Your task to perform on an android device: change keyboard looks Image 0: 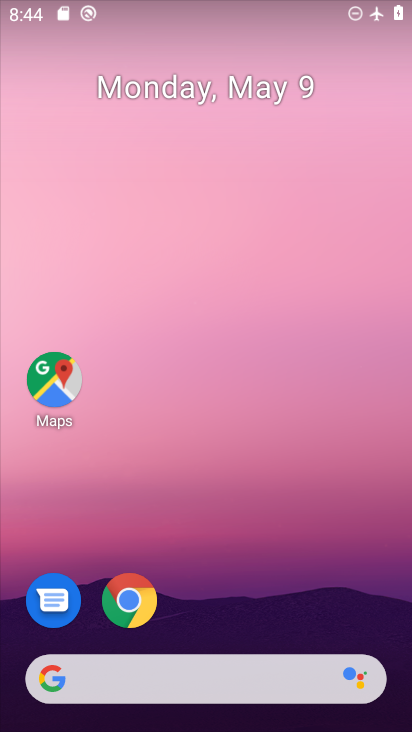
Step 0: drag from (218, 430) to (226, 22)
Your task to perform on an android device: change keyboard looks Image 1: 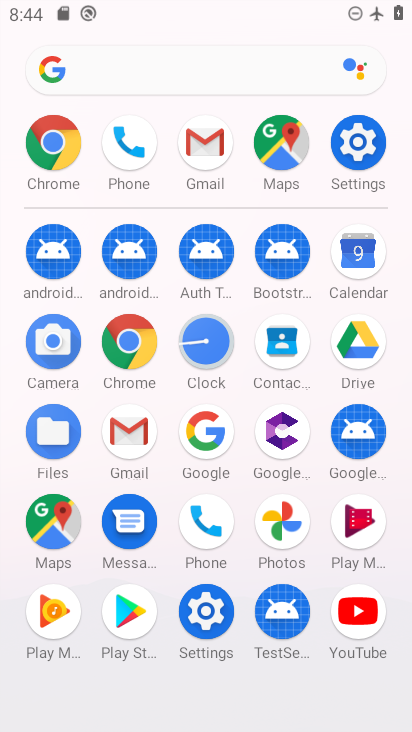
Step 1: drag from (0, 601) to (20, 285)
Your task to perform on an android device: change keyboard looks Image 2: 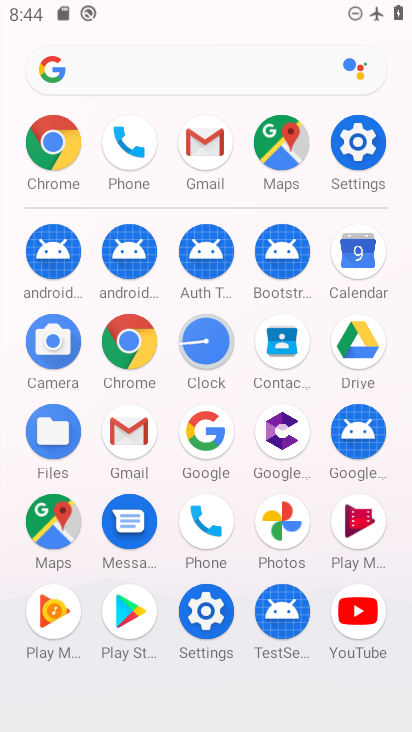
Step 2: click (205, 611)
Your task to perform on an android device: change keyboard looks Image 3: 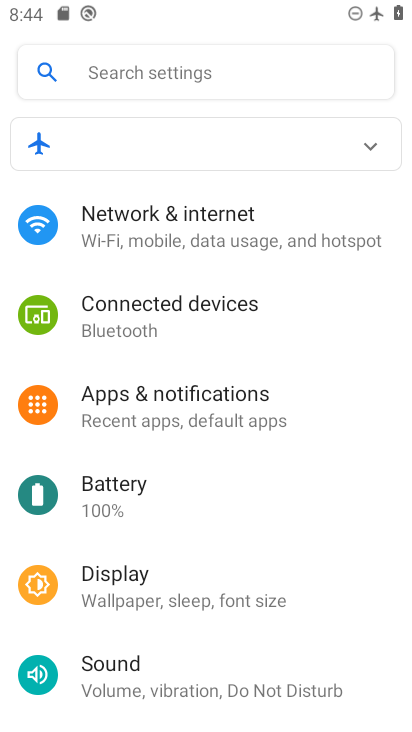
Step 3: drag from (280, 615) to (280, 122)
Your task to perform on an android device: change keyboard looks Image 4: 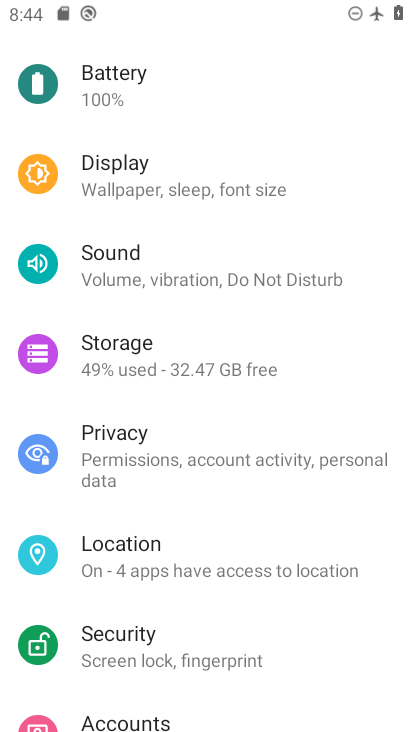
Step 4: drag from (250, 612) to (266, 150)
Your task to perform on an android device: change keyboard looks Image 5: 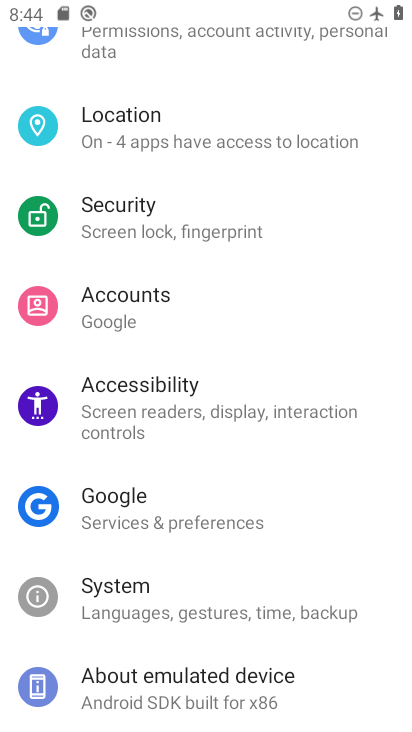
Step 5: drag from (250, 565) to (266, 131)
Your task to perform on an android device: change keyboard looks Image 6: 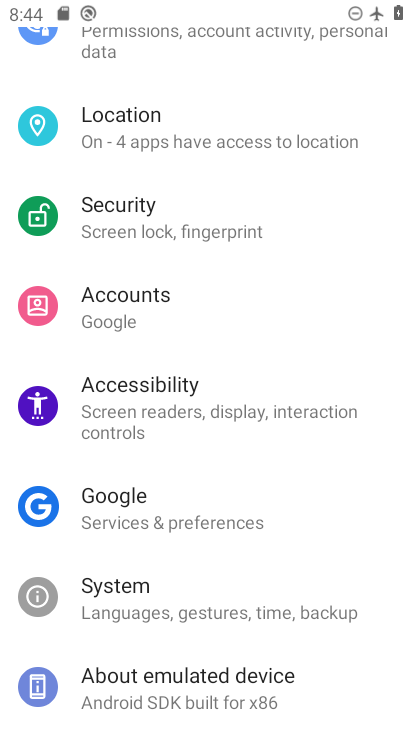
Step 6: drag from (216, 570) to (270, 240)
Your task to perform on an android device: change keyboard looks Image 7: 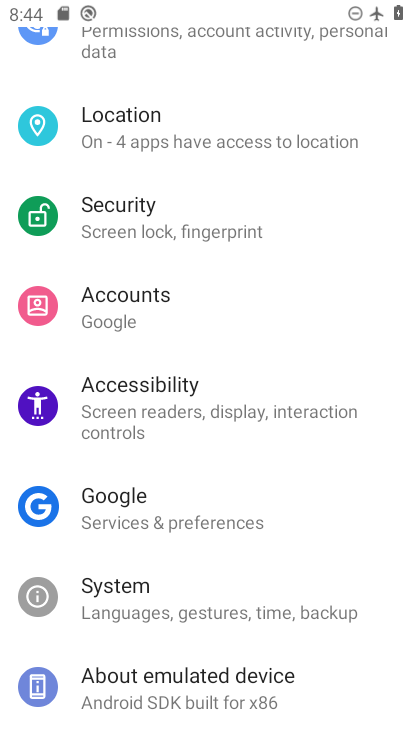
Step 7: drag from (225, 607) to (241, 255)
Your task to perform on an android device: change keyboard looks Image 8: 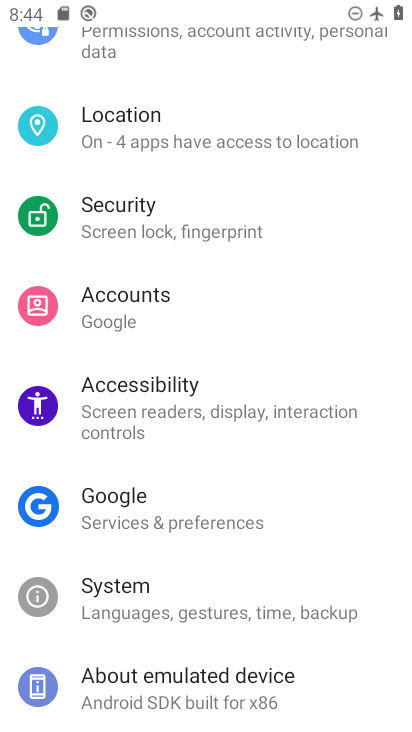
Step 8: click (175, 585)
Your task to perform on an android device: change keyboard looks Image 9: 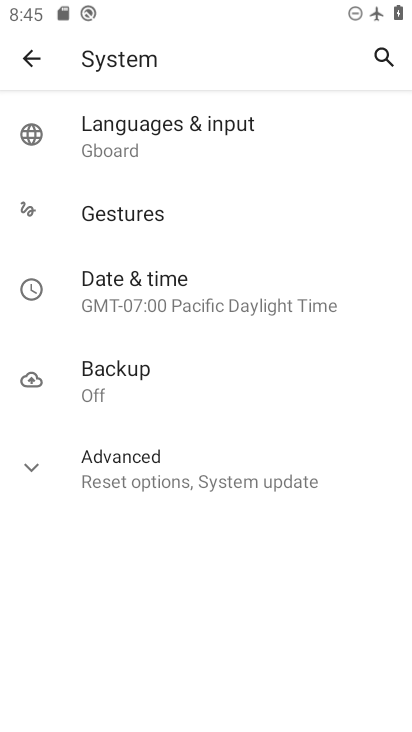
Step 9: click (139, 113)
Your task to perform on an android device: change keyboard looks Image 10: 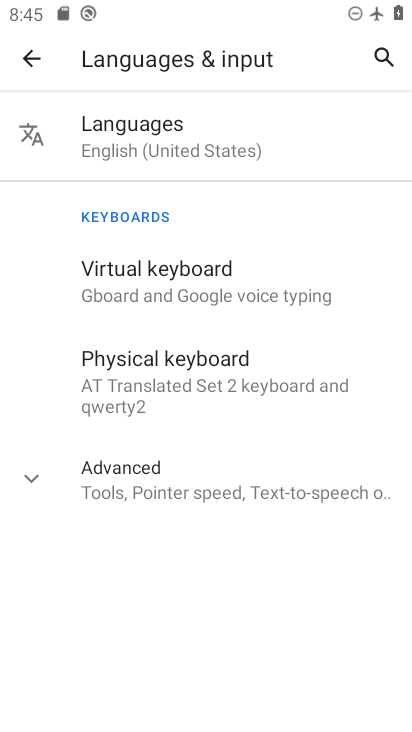
Step 10: click (183, 274)
Your task to perform on an android device: change keyboard looks Image 11: 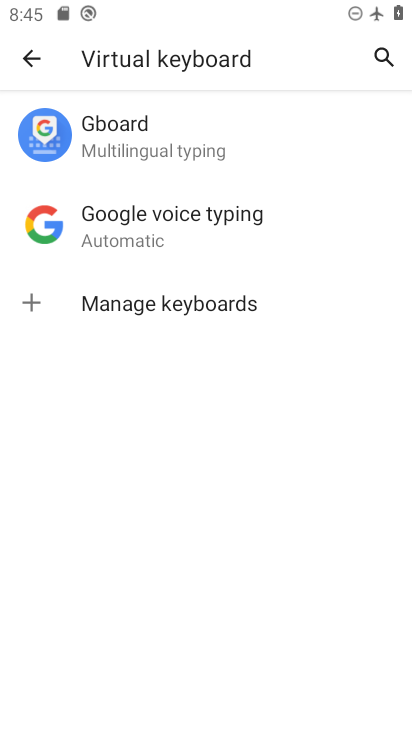
Step 11: click (188, 136)
Your task to perform on an android device: change keyboard looks Image 12: 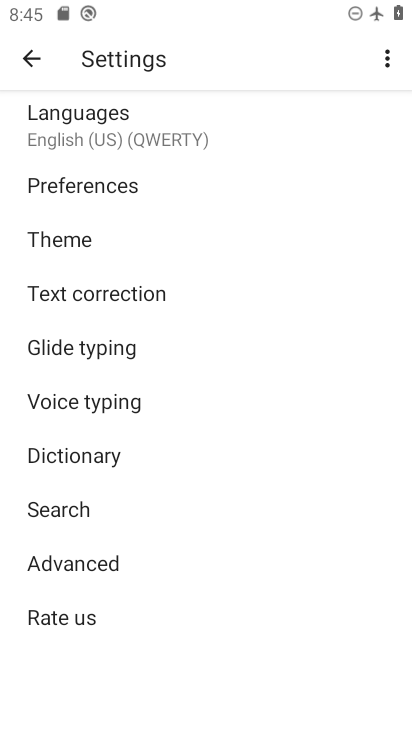
Step 12: click (82, 238)
Your task to perform on an android device: change keyboard looks Image 13: 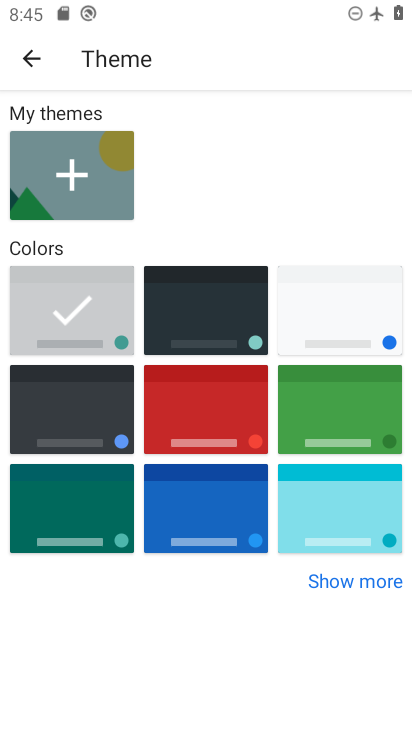
Step 13: click (218, 316)
Your task to perform on an android device: change keyboard looks Image 14: 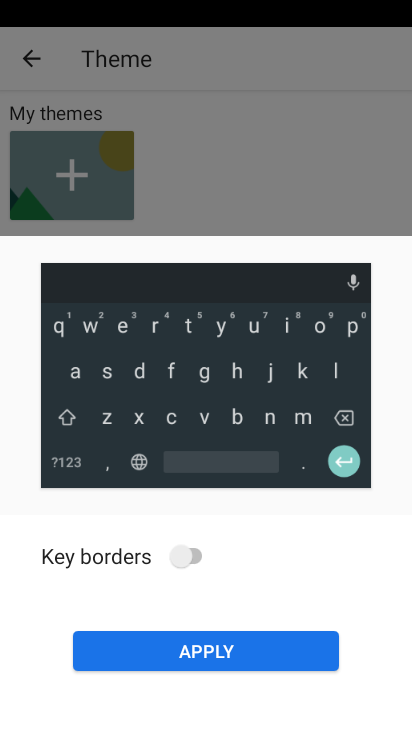
Step 14: click (191, 650)
Your task to perform on an android device: change keyboard looks Image 15: 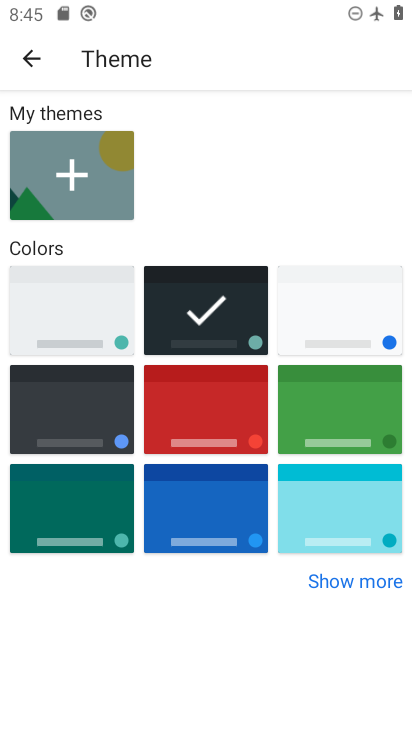
Step 15: task complete